Your task to perform on an android device: add a label to a message in the gmail app Image 0: 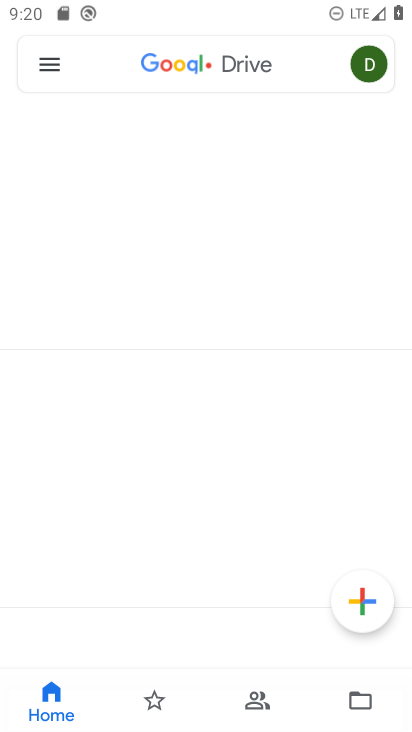
Step 0: drag from (384, 634) to (337, 274)
Your task to perform on an android device: add a label to a message in the gmail app Image 1: 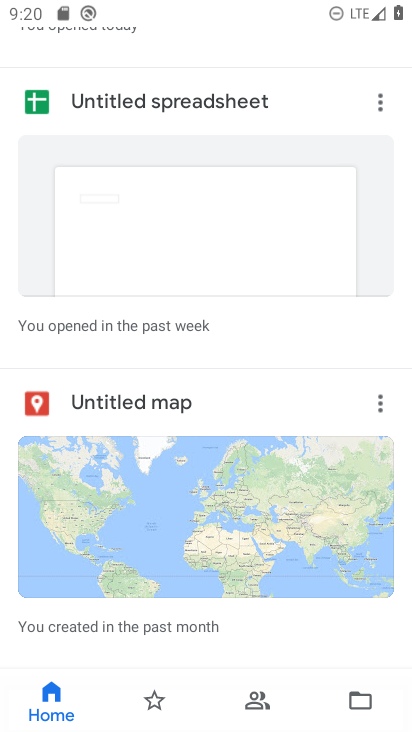
Step 1: press home button
Your task to perform on an android device: add a label to a message in the gmail app Image 2: 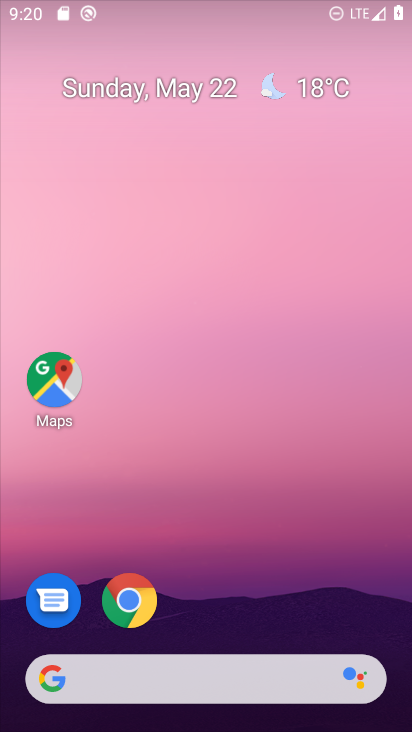
Step 2: drag from (395, 624) to (175, 95)
Your task to perform on an android device: add a label to a message in the gmail app Image 3: 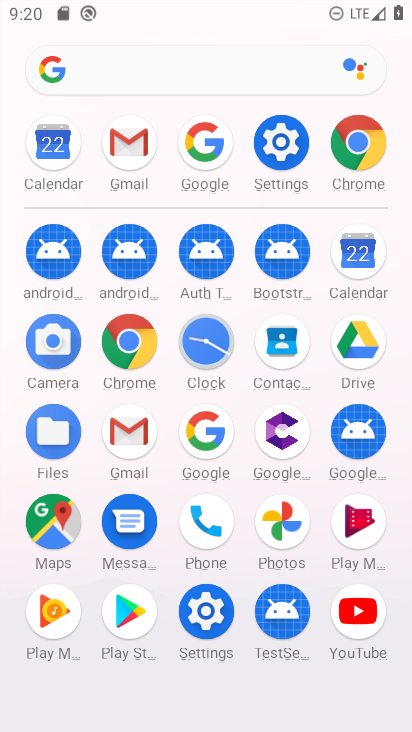
Step 3: click (120, 450)
Your task to perform on an android device: add a label to a message in the gmail app Image 4: 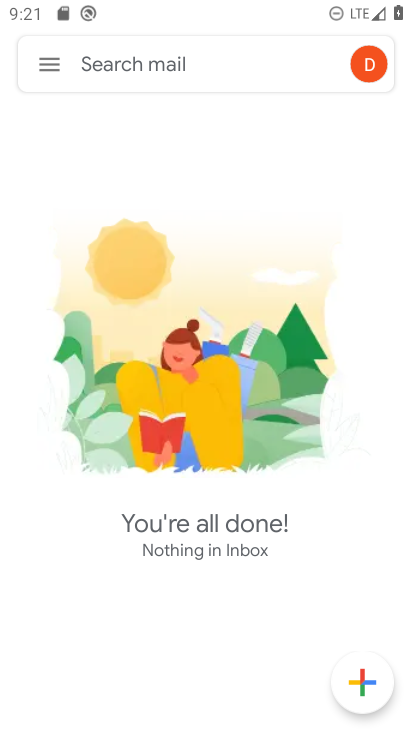
Step 4: task complete